Your task to perform on an android device: Show me productivity apps on the Play Store Image 0: 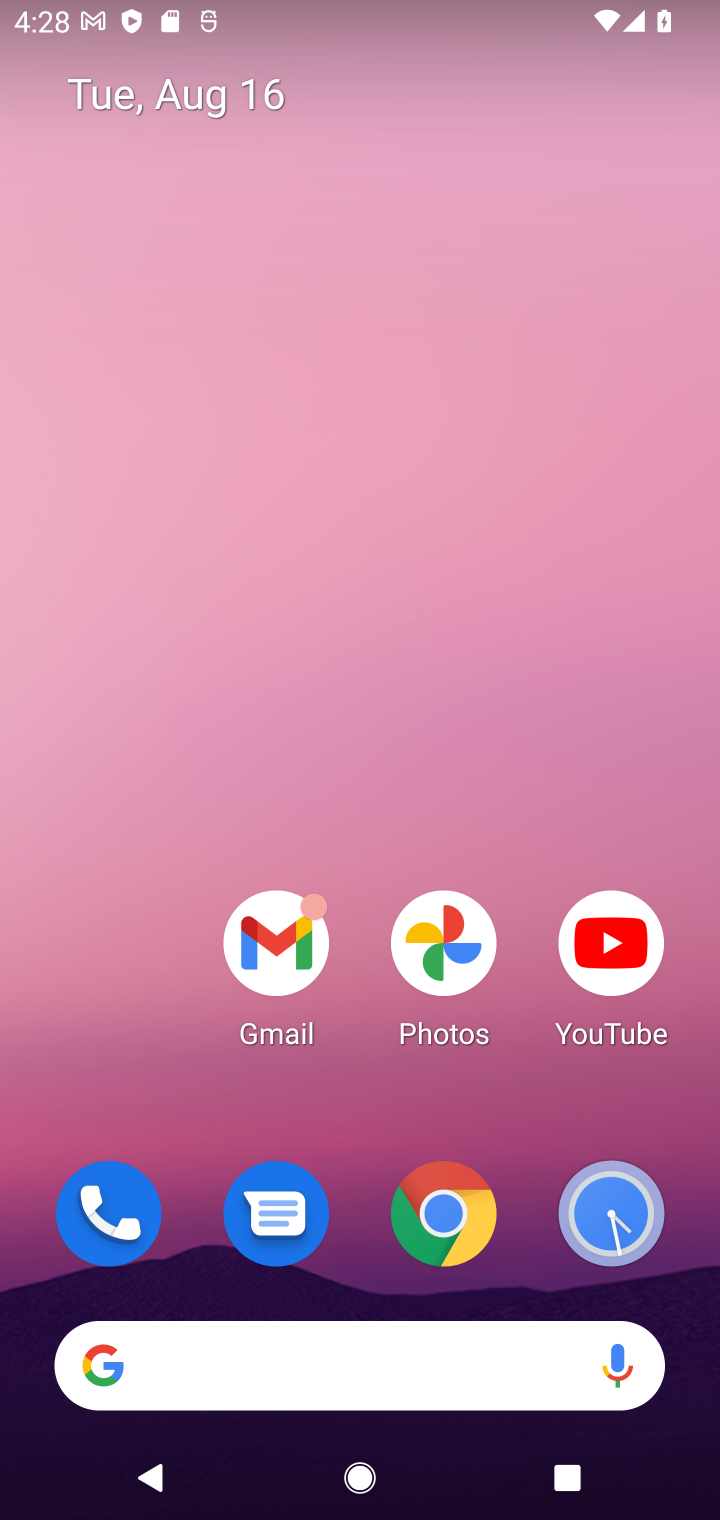
Step 0: drag from (96, 714) to (155, 41)
Your task to perform on an android device: Show me productivity apps on the Play Store Image 1: 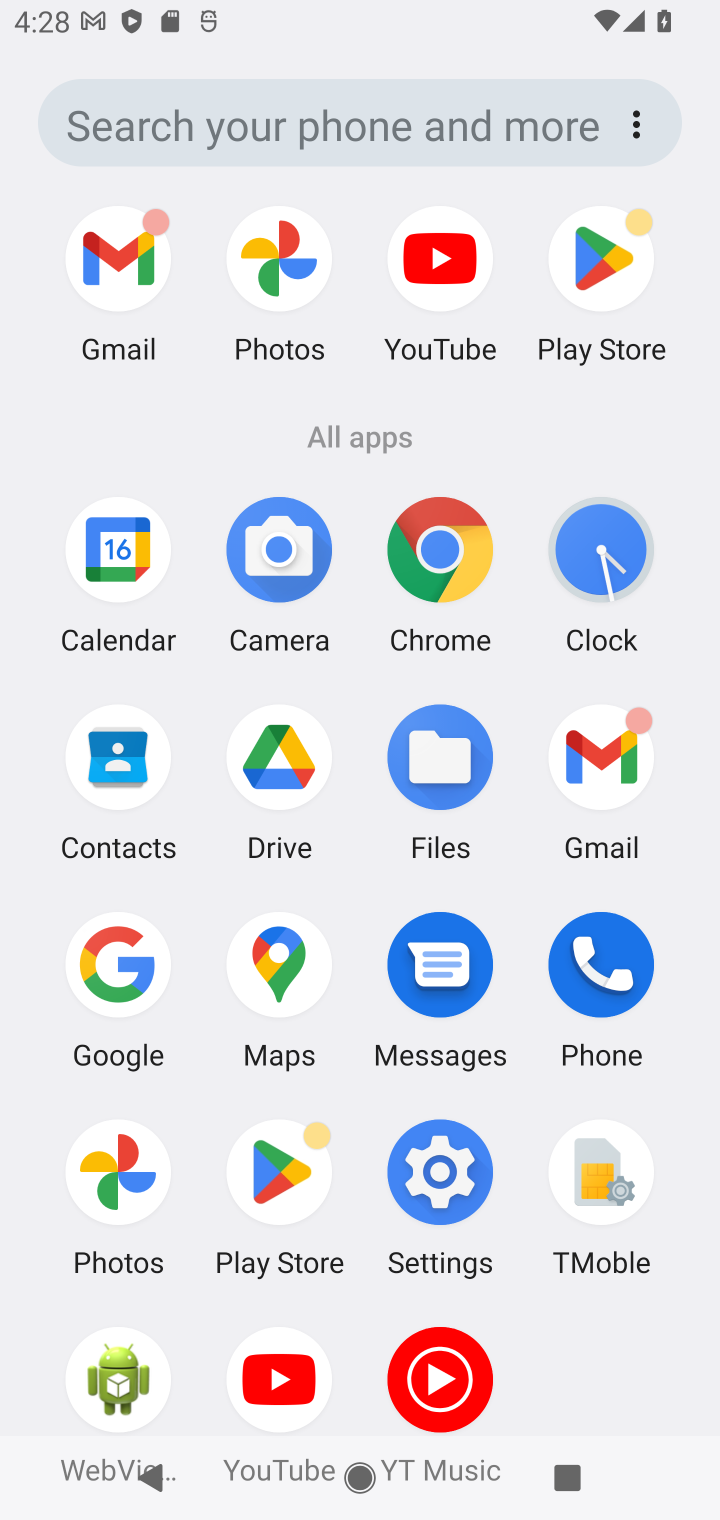
Step 1: click (257, 1183)
Your task to perform on an android device: Show me productivity apps on the Play Store Image 2: 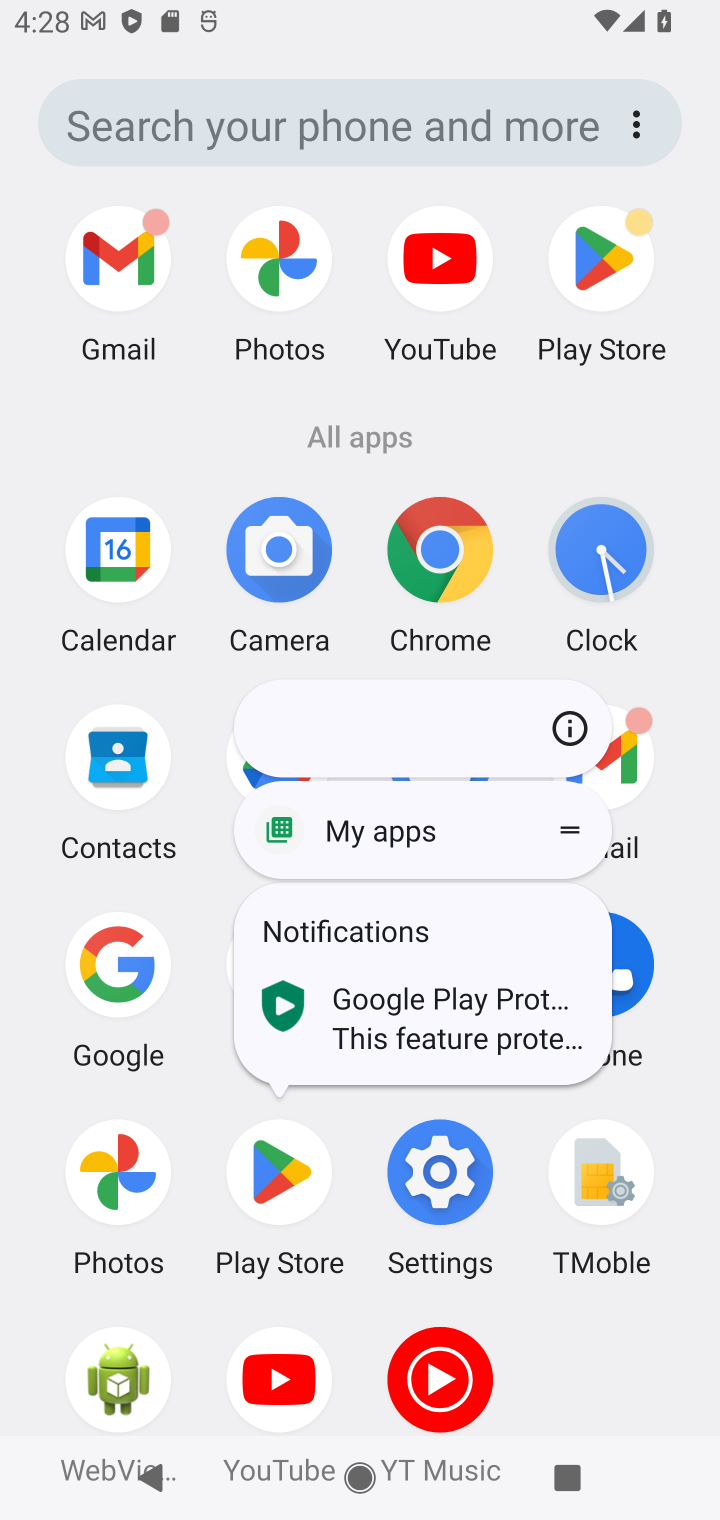
Step 2: click (266, 1181)
Your task to perform on an android device: Show me productivity apps on the Play Store Image 3: 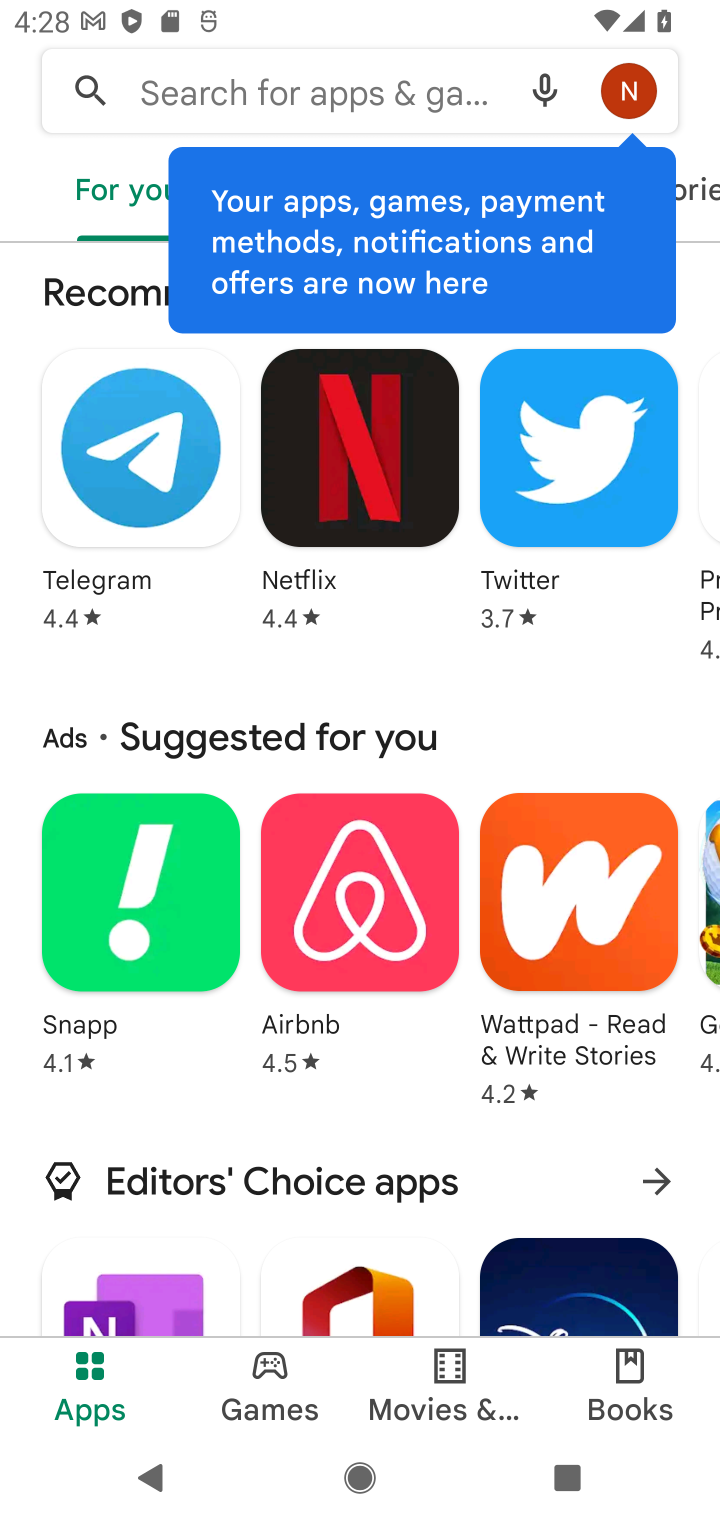
Step 3: task complete